Your task to perform on an android device: turn off location history Image 0: 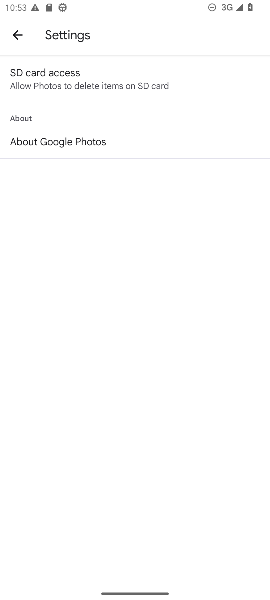
Step 0: press home button
Your task to perform on an android device: turn off location history Image 1: 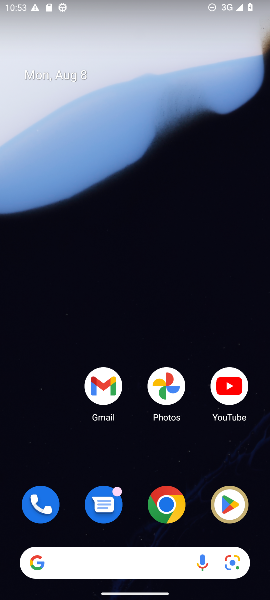
Step 1: drag from (128, 461) to (117, 497)
Your task to perform on an android device: turn off location history Image 2: 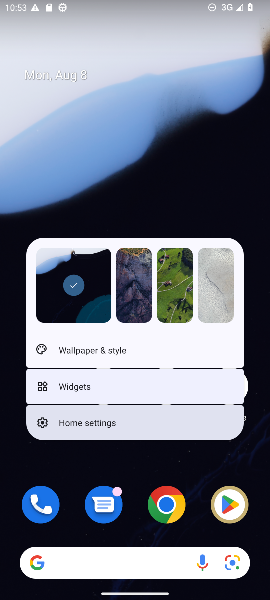
Step 2: click (181, 464)
Your task to perform on an android device: turn off location history Image 3: 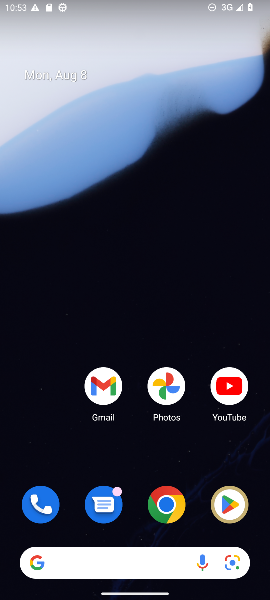
Step 3: drag from (123, 530) to (145, 131)
Your task to perform on an android device: turn off location history Image 4: 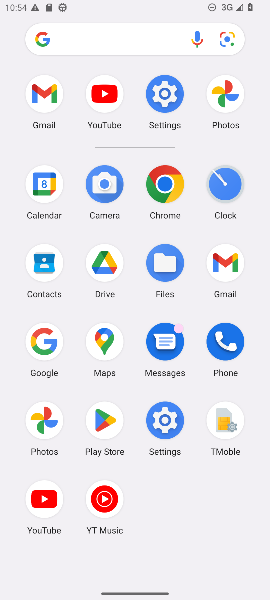
Step 4: click (172, 427)
Your task to perform on an android device: turn off location history Image 5: 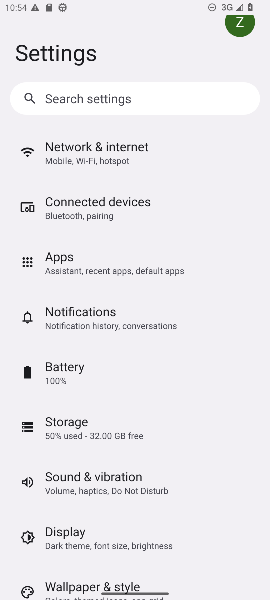
Step 5: drag from (122, 508) to (134, 287)
Your task to perform on an android device: turn off location history Image 6: 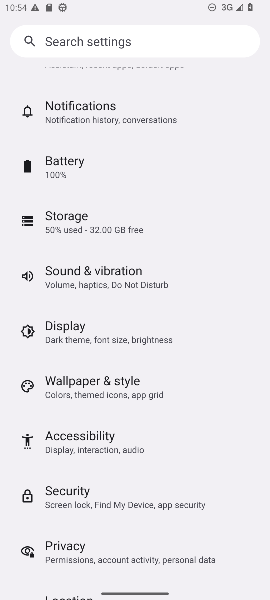
Step 6: drag from (89, 458) to (111, 255)
Your task to perform on an android device: turn off location history Image 7: 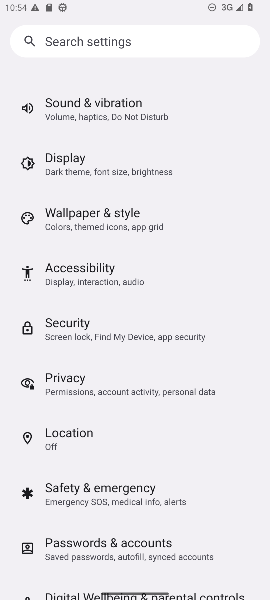
Step 7: click (85, 440)
Your task to perform on an android device: turn off location history Image 8: 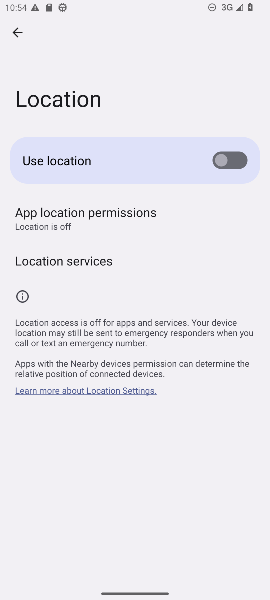
Step 8: click (98, 263)
Your task to perform on an android device: turn off location history Image 9: 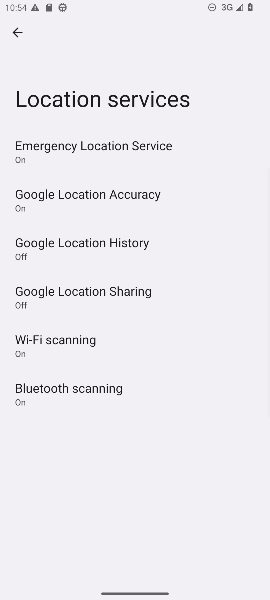
Step 9: click (101, 245)
Your task to perform on an android device: turn off location history Image 10: 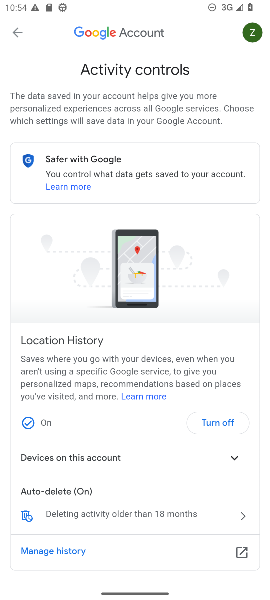
Step 10: click (222, 418)
Your task to perform on an android device: turn off location history Image 11: 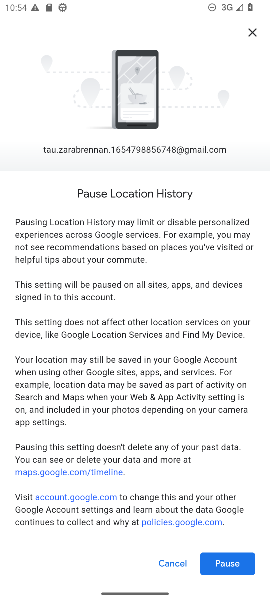
Step 11: click (232, 566)
Your task to perform on an android device: turn off location history Image 12: 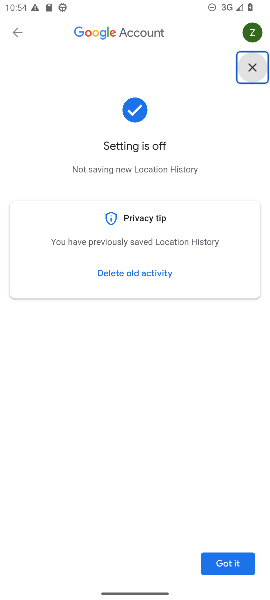
Step 12: click (226, 571)
Your task to perform on an android device: turn off location history Image 13: 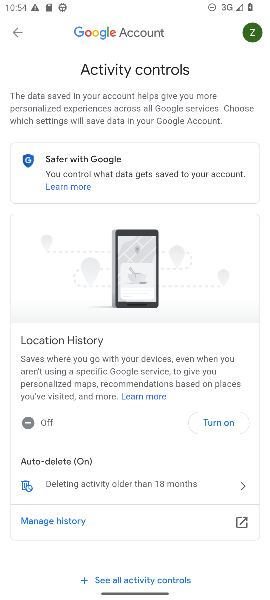
Step 13: task complete